Your task to perform on an android device: Open Amazon Image 0: 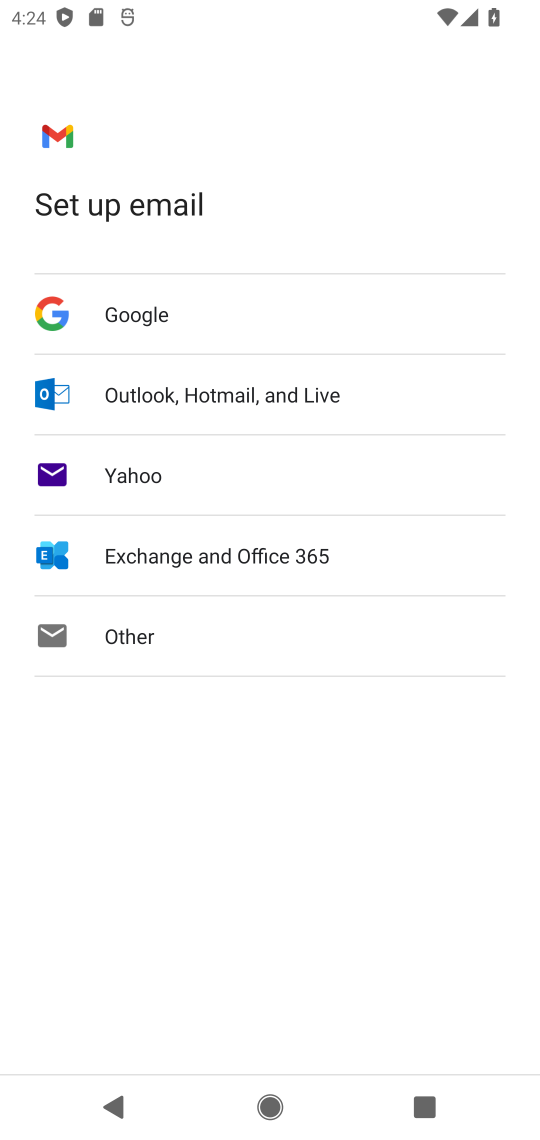
Step 0: press home button
Your task to perform on an android device: Open Amazon Image 1: 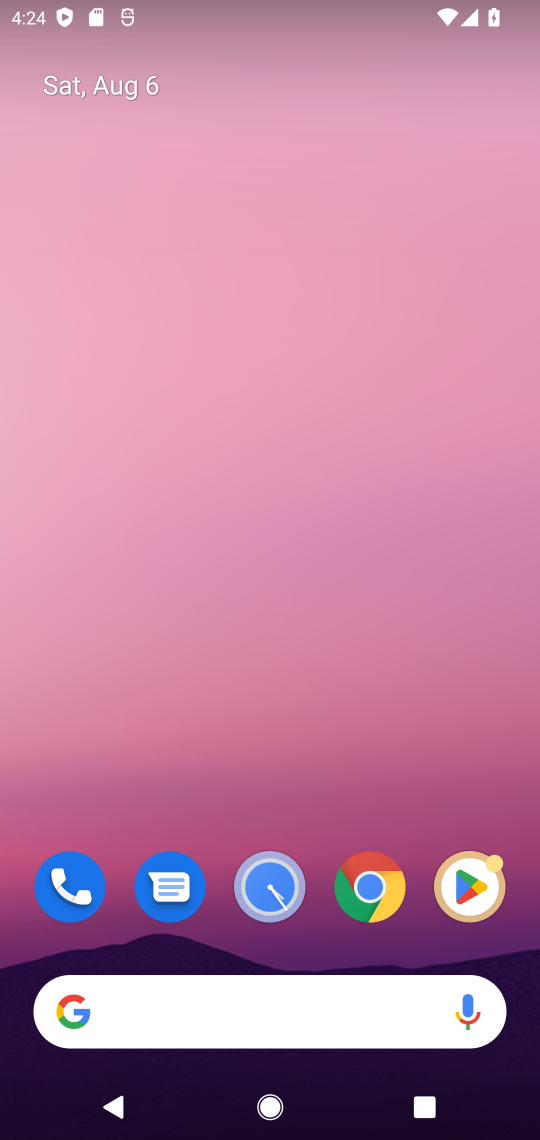
Step 1: click (362, 869)
Your task to perform on an android device: Open Amazon Image 2: 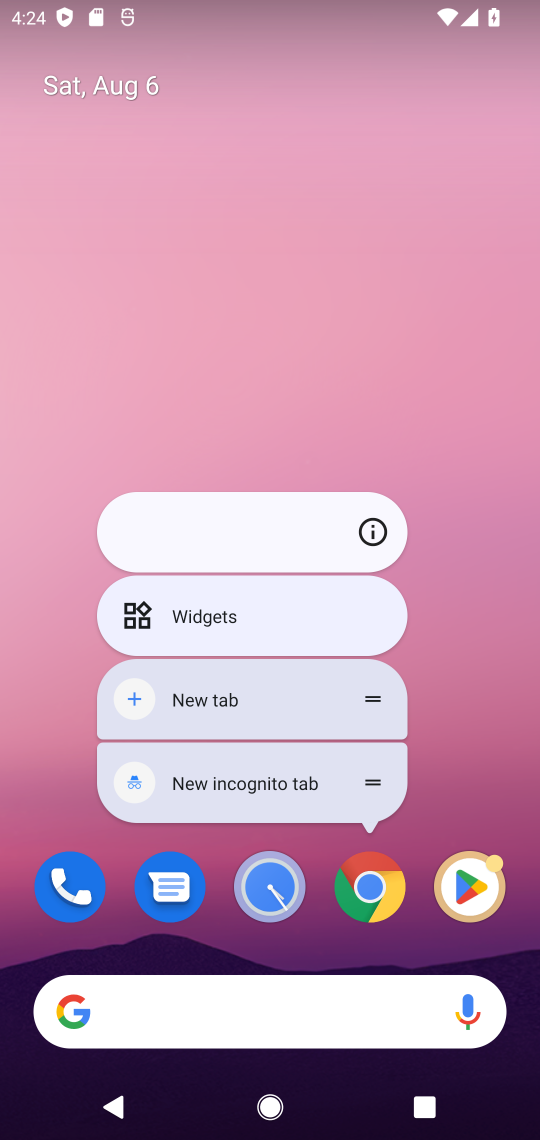
Step 2: click (387, 878)
Your task to perform on an android device: Open Amazon Image 3: 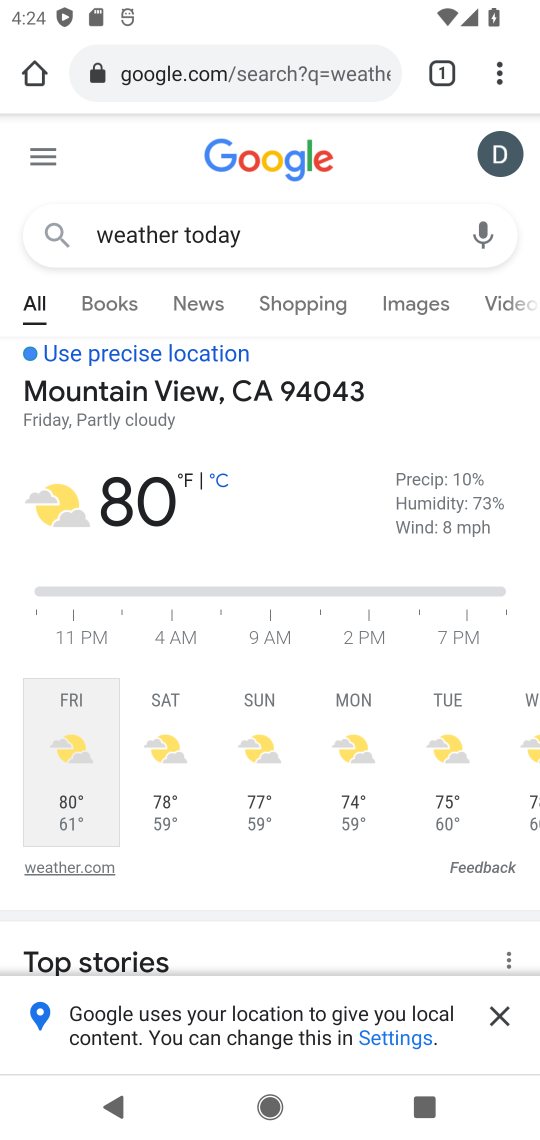
Step 3: click (269, 71)
Your task to perform on an android device: Open Amazon Image 4: 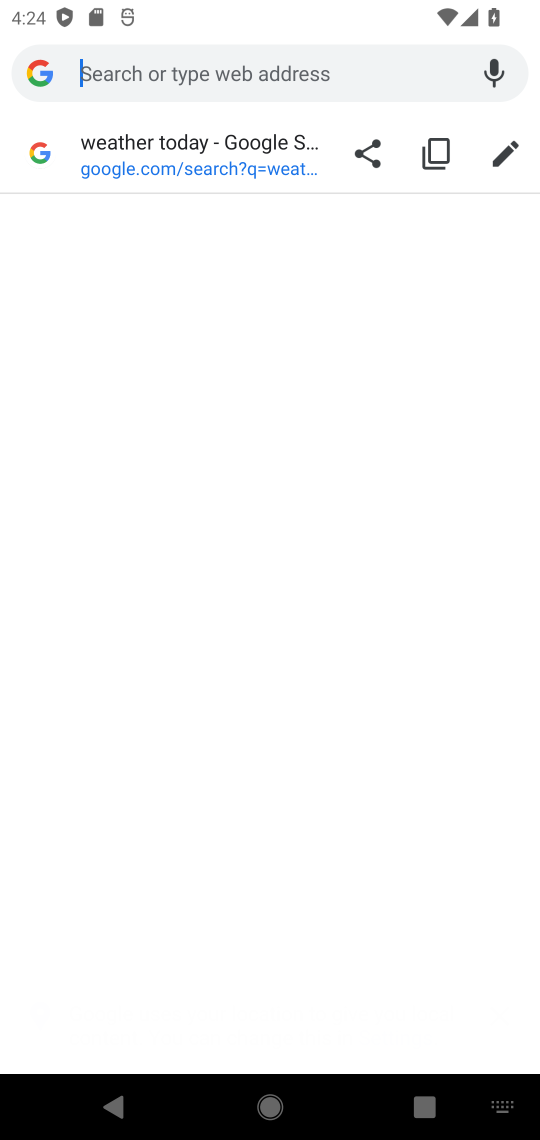
Step 4: type "amazon"
Your task to perform on an android device: Open Amazon Image 5: 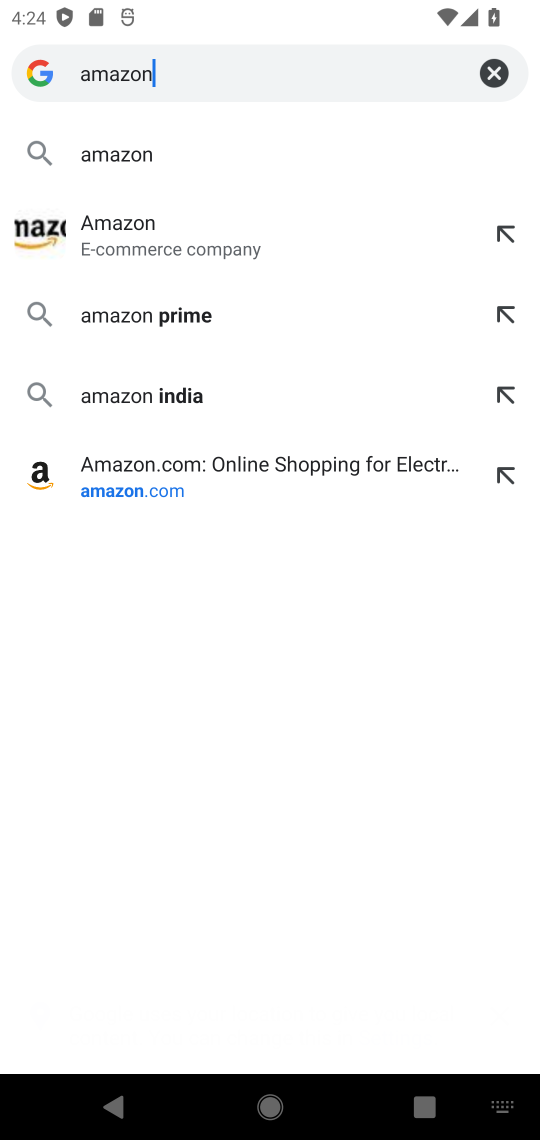
Step 5: click (157, 163)
Your task to perform on an android device: Open Amazon Image 6: 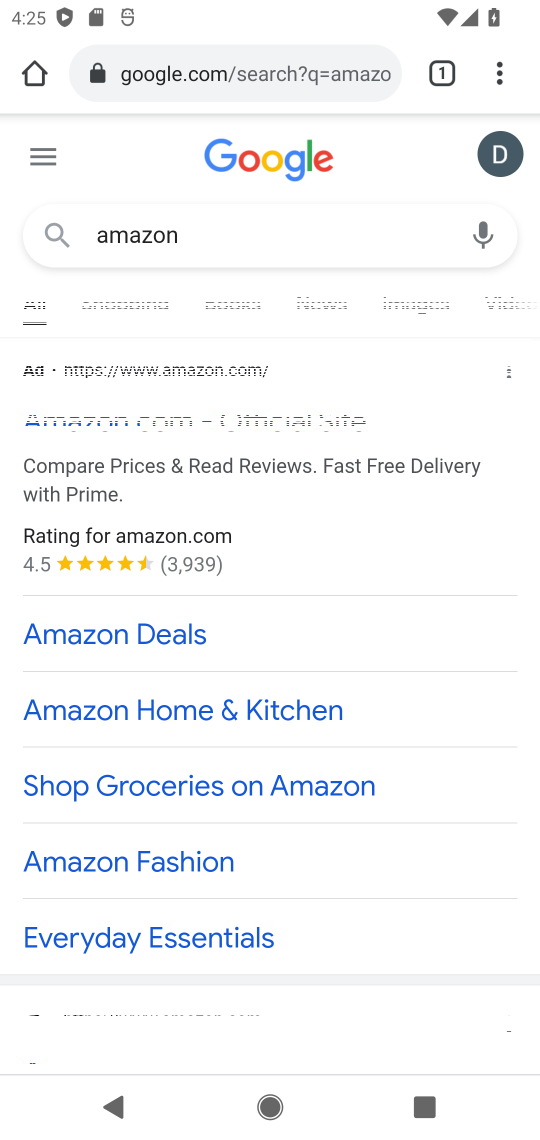
Step 6: click (137, 1068)
Your task to perform on an android device: Open Amazon Image 7: 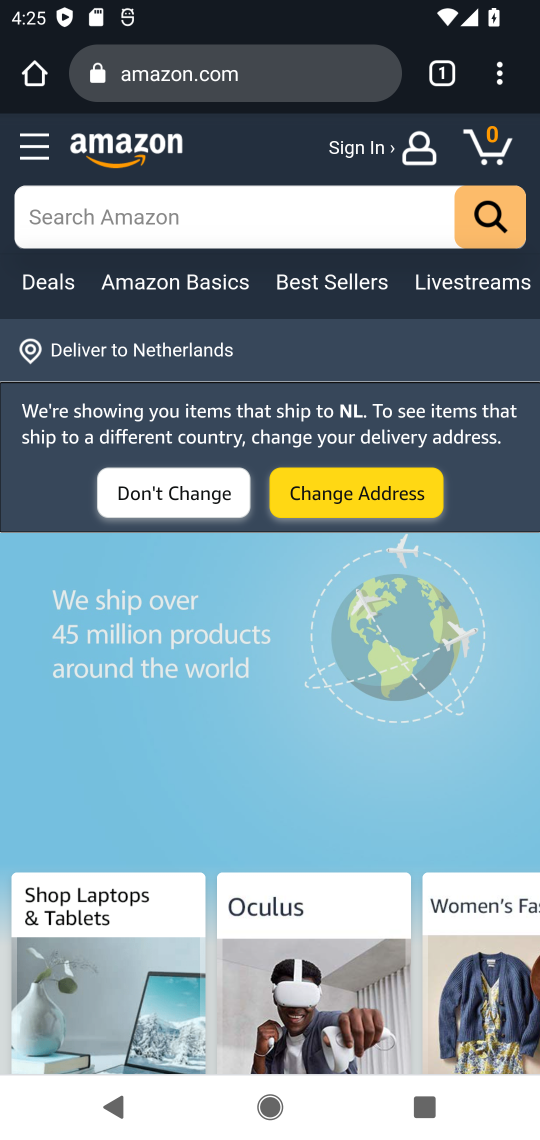
Step 7: task complete